Your task to perform on an android device: Open privacy settings Image 0: 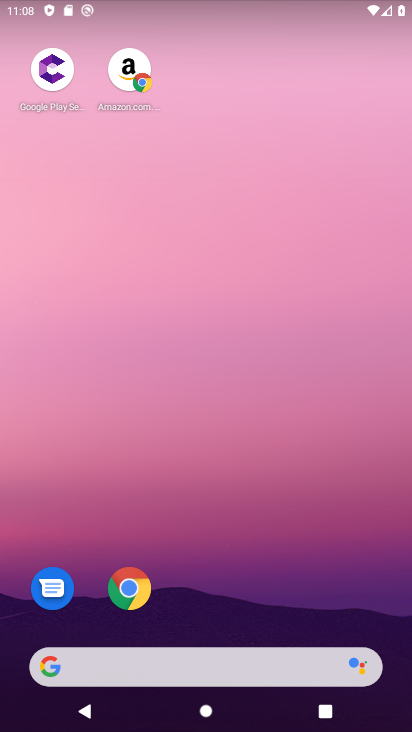
Step 0: drag from (198, 689) to (322, 120)
Your task to perform on an android device: Open privacy settings Image 1: 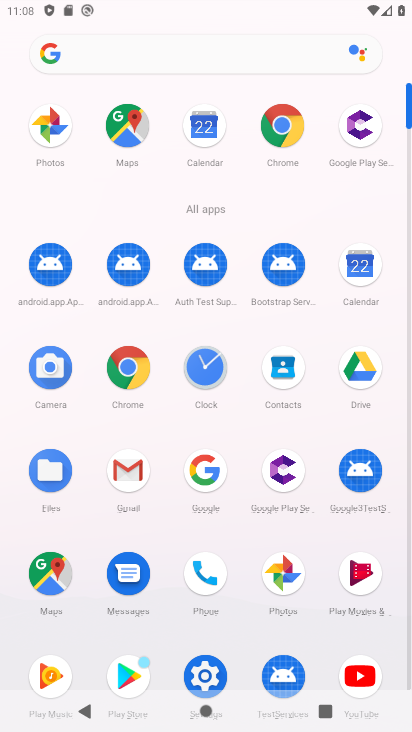
Step 1: click (206, 668)
Your task to perform on an android device: Open privacy settings Image 2: 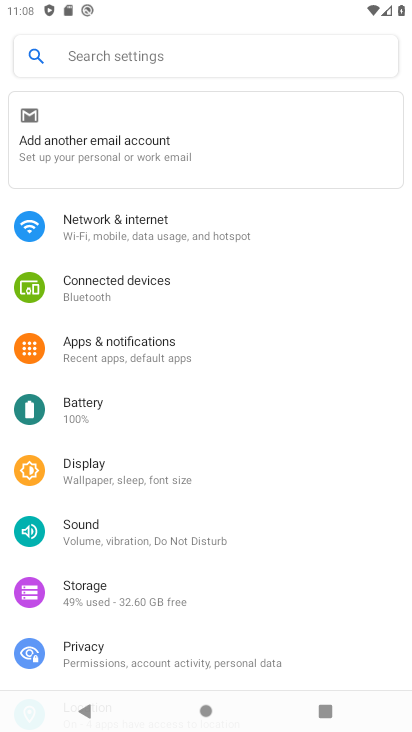
Step 2: click (99, 658)
Your task to perform on an android device: Open privacy settings Image 3: 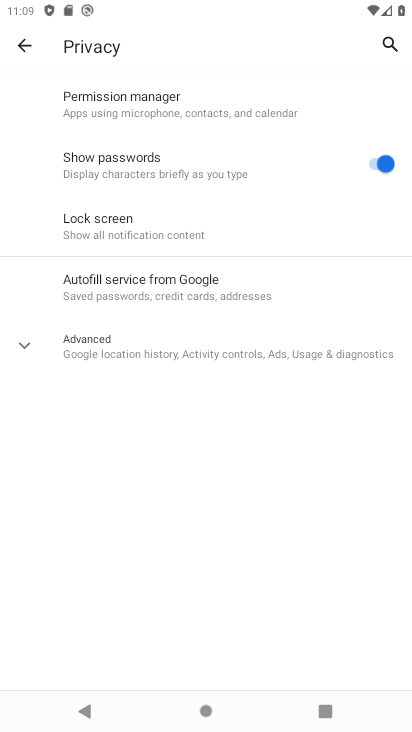
Step 3: task complete